Your task to perform on an android device: Open the calendar app, open the side menu, and click the "Day" option Image 0: 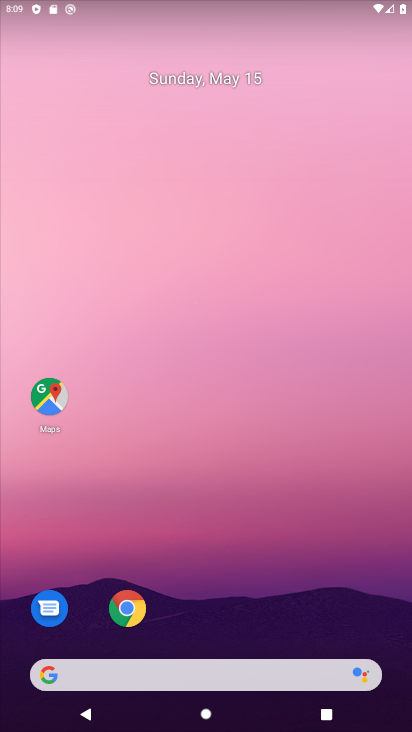
Step 0: drag from (192, 601) to (256, 130)
Your task to perform on an android device: Open the calendar app, open the side menu, and click the "Day" option Image 1: 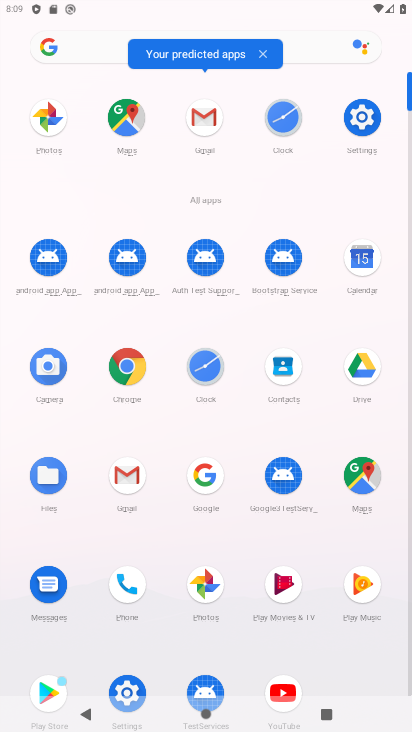
Step 1: click (358, 268)
Your task to perform on an android device: Open the calendar app, open the side menu, and click the "Day" option Image 2: 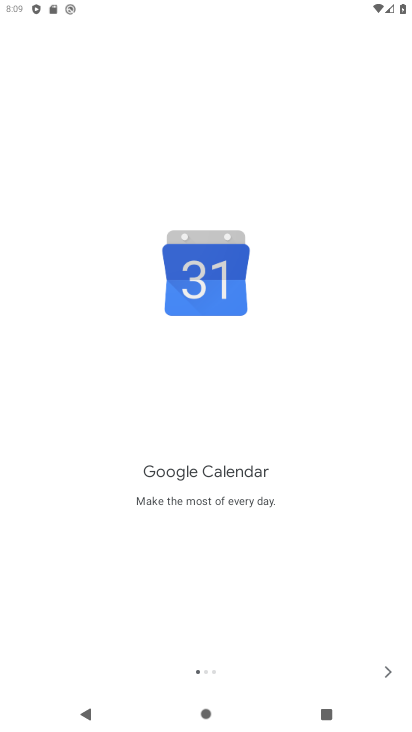
Step 2: click (392, 666)
Your task to perform on an android device: Open the calendar app, open the side menu, and click the "Day" option Image 3: 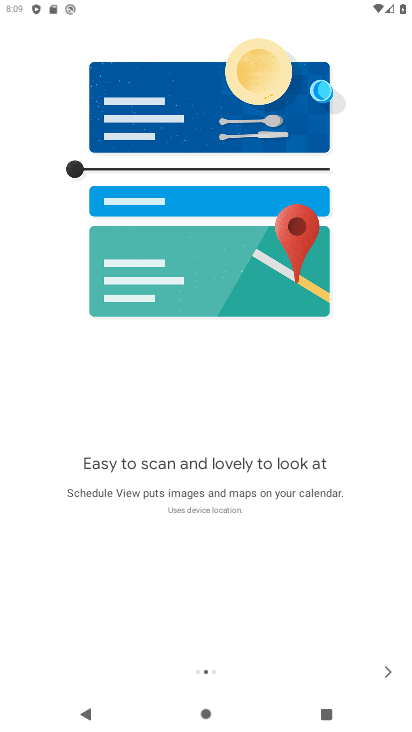
Step 3: click (392, 666)
Your task to perform on an android device: Open the calendar app, open the side menu, and click the "Day" option Image 4: 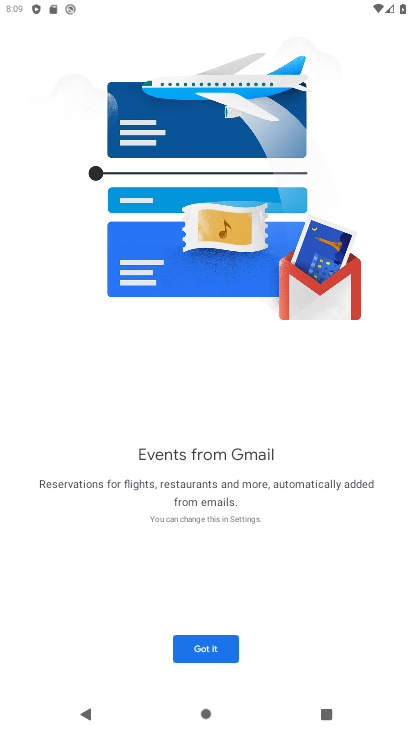
Step 4: click (224, 652)
Your task to perform on an android device: Open the calendar app, open the side menu, and click the "Day" option Image 5: 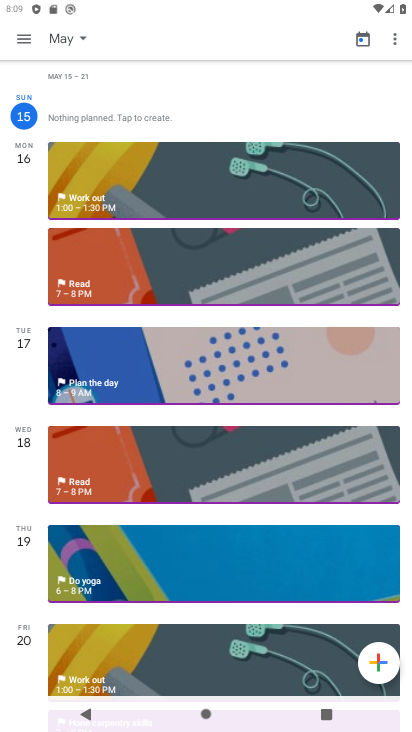
Step 5: click (19, 41)
Your task to perform on an android device: Open the calendar app, open the side menu, and click the "Day" option Image 6: 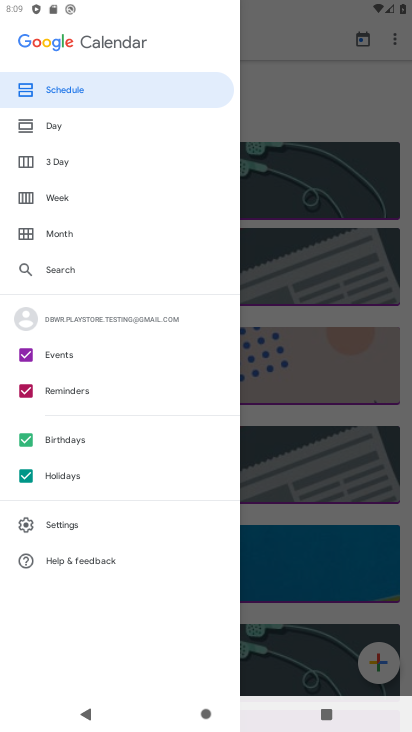
Step 6: click (69, 119)
Your task to perform on an android device: Open the calendar app, open the side menu, and click the "Day" option Image 7: 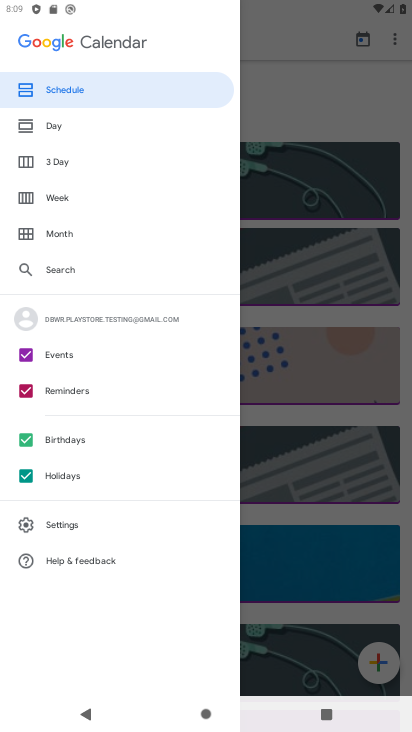
Step 7: click (52, 126)
Your task to perform on an android device: Open the calendar app, open the side menu, and click the "Day" option Image 8: 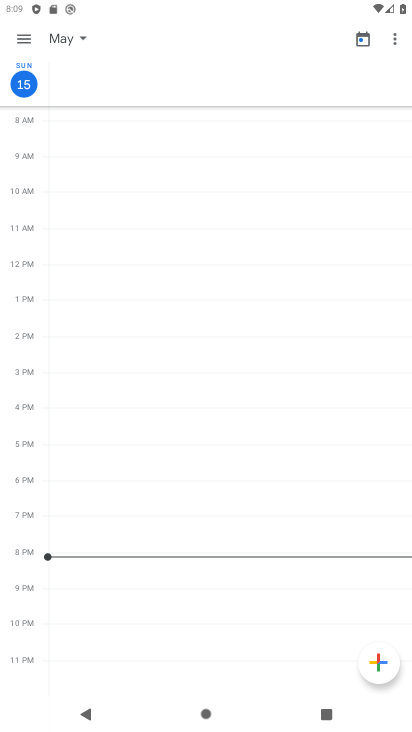
Step 8: task complete